Your task to perform on an android device: turn on showing notifications on the lock screen Image 0: 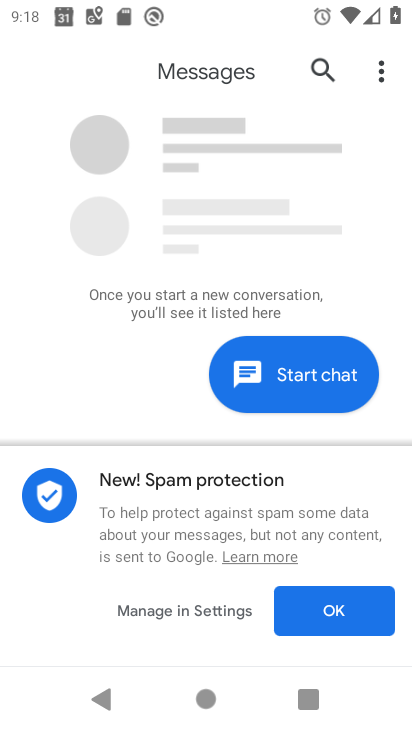
Step 0: press back button
Your task to perform on an android device: turn on showing notifications on the lock screen Image 1: 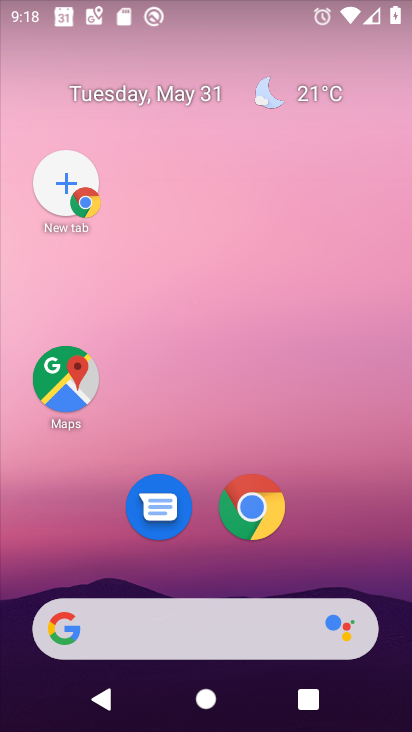
Step 1: drag from (260, 667) to (245, 71)
Your task to perform on an android device: turn on showing notifications on the lock screen Image 2: 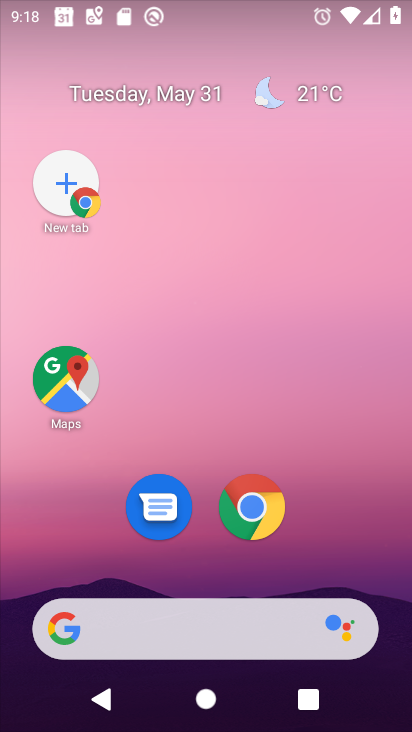
Step 2: drag from (260, 473) to (214, 98)
Your task to perform on an android device: turn on showing notifications on the lock screen Image 3: 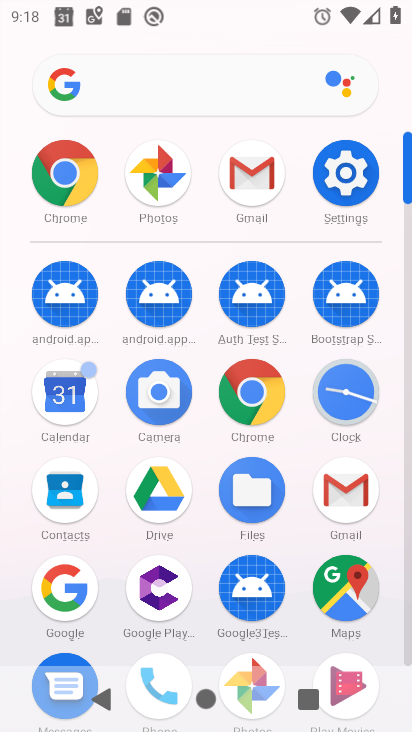
Step 3: click (347, 178)
Your task to perform on an android device: turn on showing notifications on the lock screen Image 4: 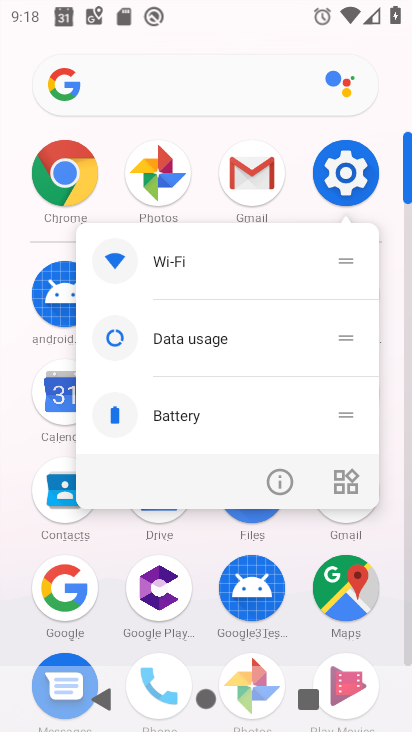
Step 4: click (341, 183)
Your task to perform on an android device: turn on showing notifications on the lock screen Image 5: 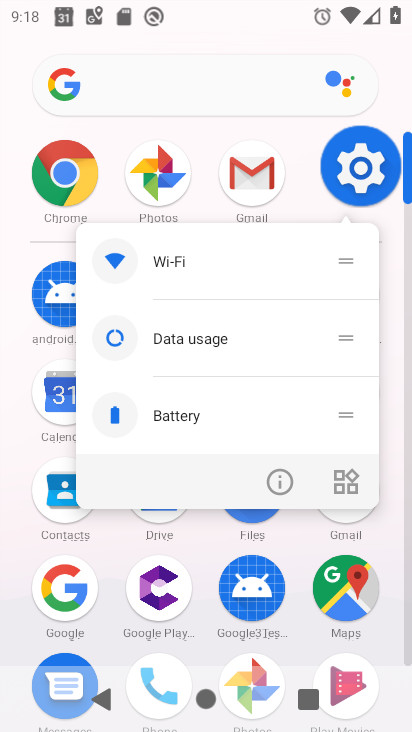
Step 5: click (356, 175)
Your task to perform on an android device: turn on showing notifications on the lock screen Image 6: 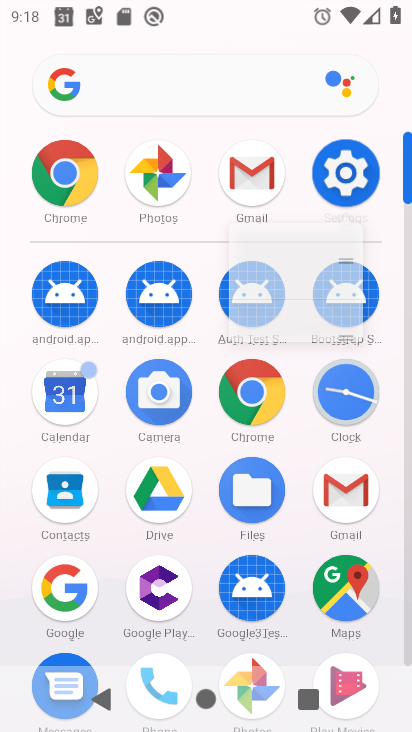
Step 6: click (355, 174)
Your task to perform on an android device: turn on showing notifications on the lock screen Image 7: 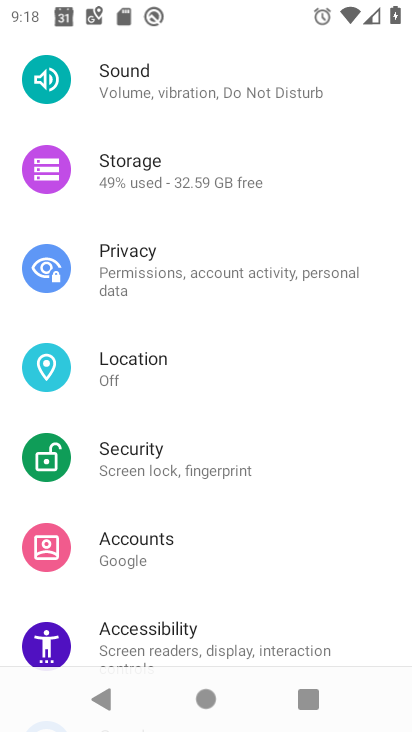
Step 7: drag from (139, 171) to (210, 674)
Your task to perform on an android device: turn on showing notifications on the lock screen Image 8: 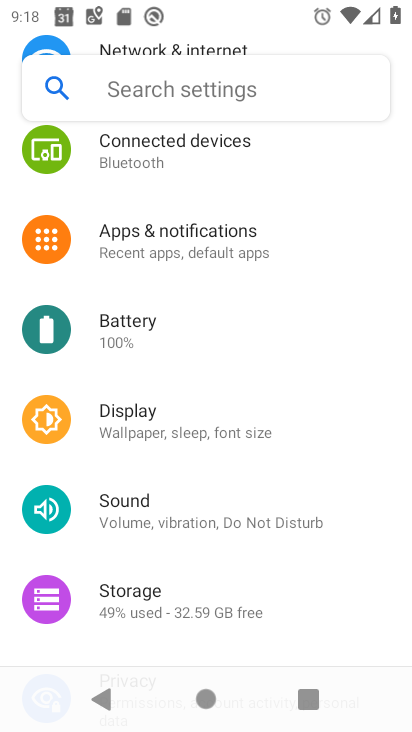
Step 8: drag from (168, 290) to (179, 567)
Your task to perform on an android device: turn on showing notifications on the lock screen Image 9: 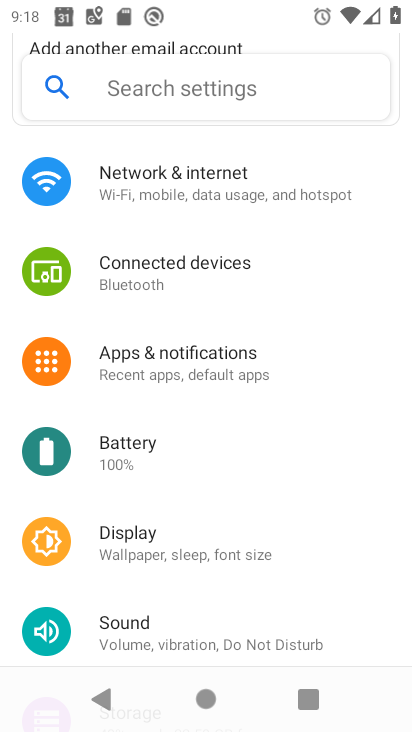
Step 9: click (162, 361)
Your task to perform on an android device: turn on showing notifications on the lock screen Image 10: 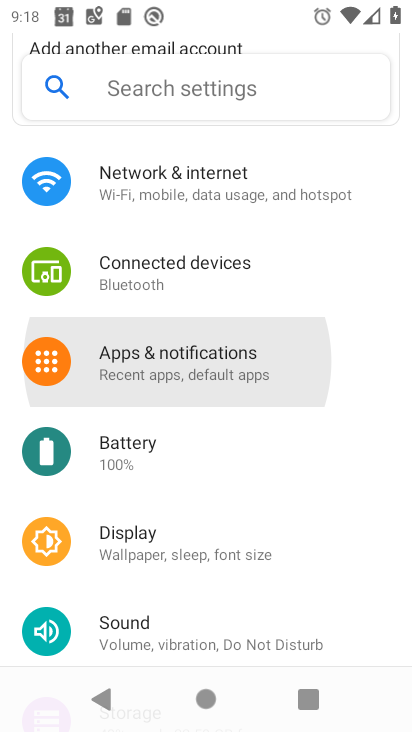
Step 10: click (163, 362)
Your task to perform on an android device: turn on showing notifications on the lock screen Image 11: 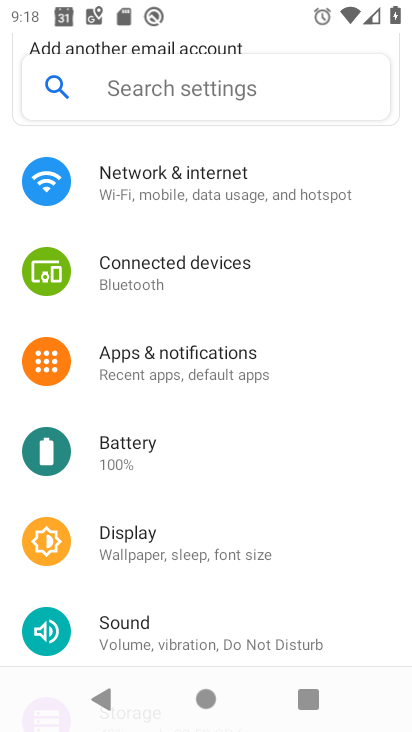
Step 11: click (172, 367)
Your task to perform on an android device: turn on showing notifications on the lock screen Image 12: 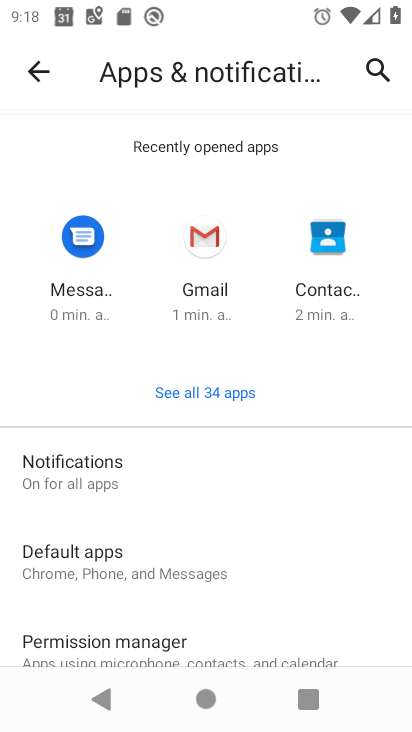
Step 12: click (62, 456)
Your task to perform on an android device: turn on showing notifications on the lock screen Image 13: 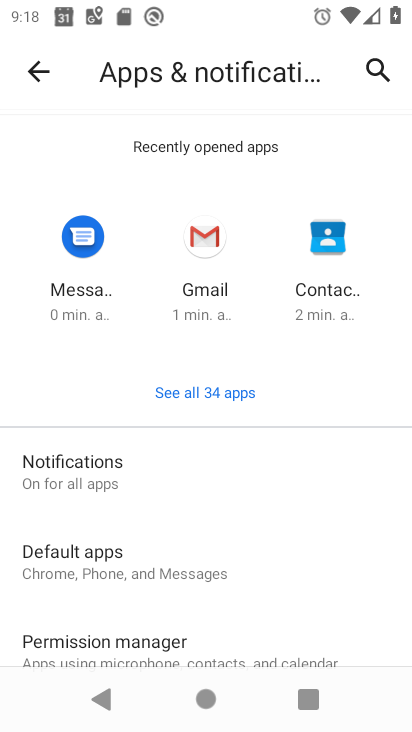
Step 13: click (62, 456)
Your task to perform on an android device: turn on showing notifications on the lock screen Image 14: 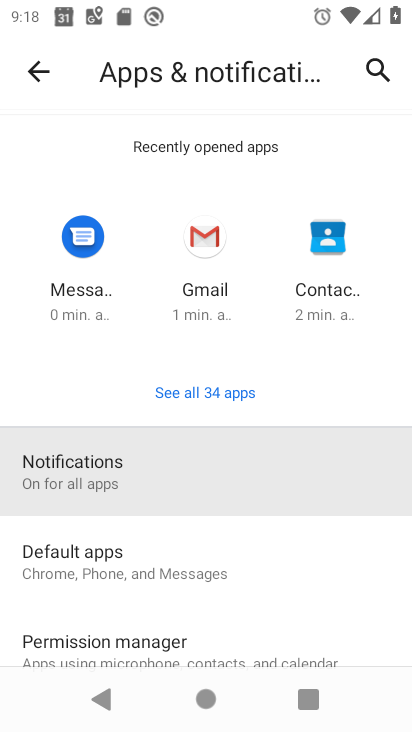
Step 14: click (62, 456)
Your task to perform on an android device: turn on showing notifications on the lock screen Image 15: 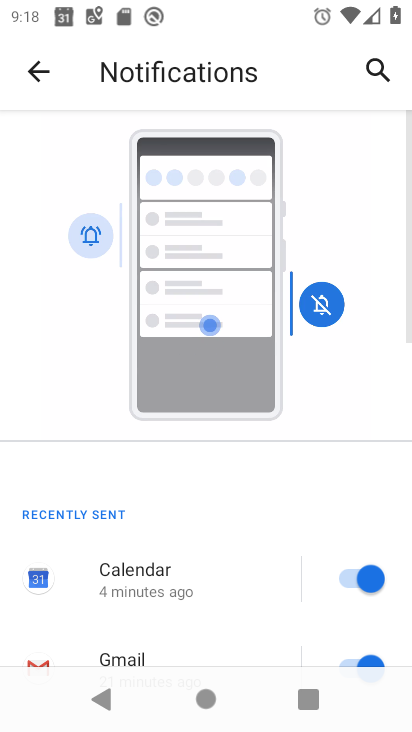
Step 15: drag from (214, 562) to (204, 151)
Your task to perform on an android device: turn on showing notifications on the lock screen Image 16: 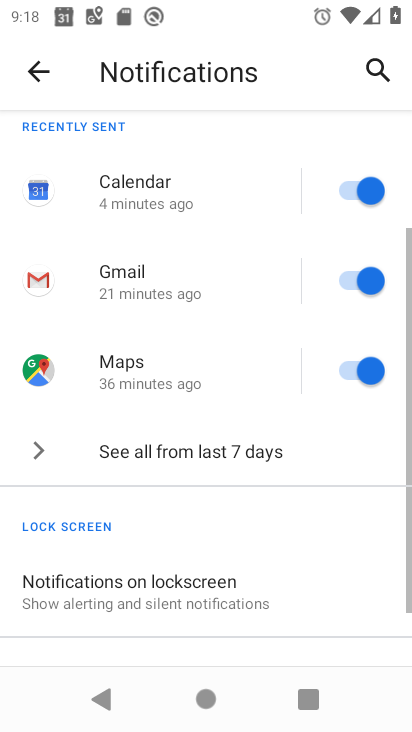
Step 16: drag from (197, 426) to (251, 115)
Your task to perform on an android device: turn on showing notifications on the lock screen Image 17: 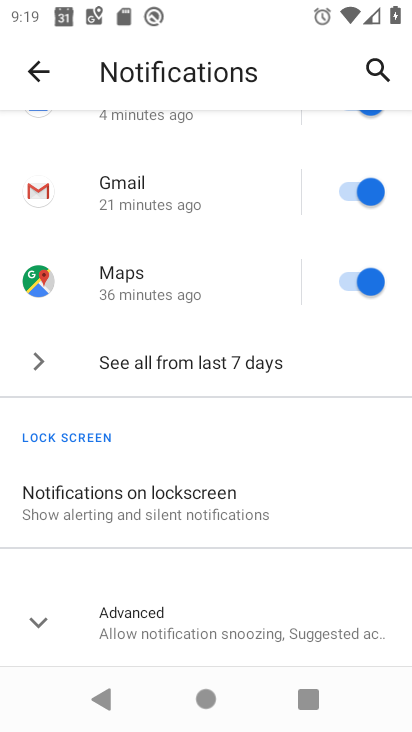
Step 17: click (276, 189)
Your task to perform on an android device: turn on showing notifications on the lock screen Image 18: 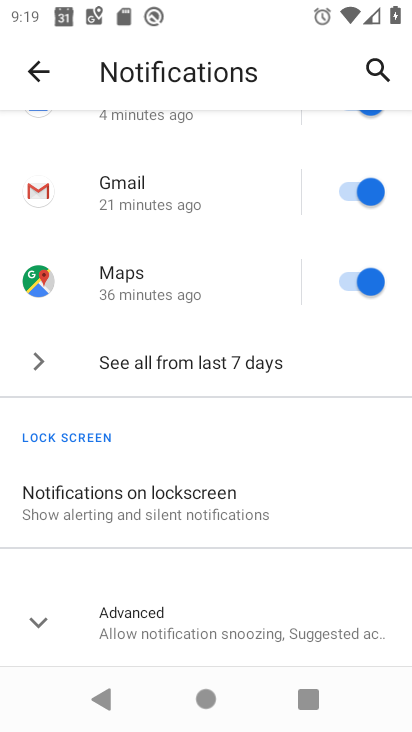
Step 18: drag from (279, 556) to (184, 162)
Your task to perform on an android device: turn on showing notifications on the lock screen Image 19: 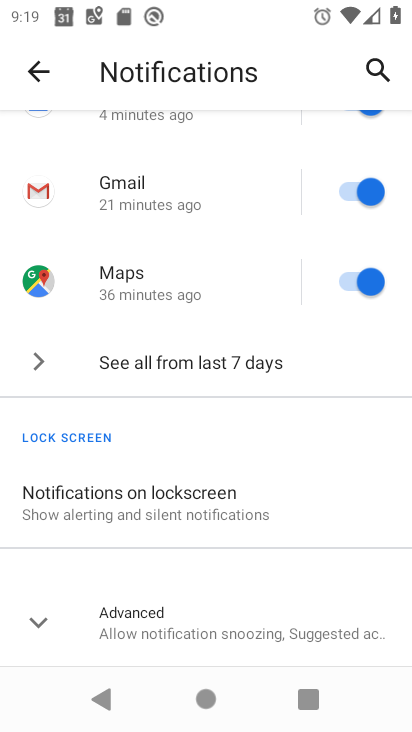
Step 19: click (169, 632)
Your task to perform on an android device: turn on showing notifications on the lock screen Image 20: 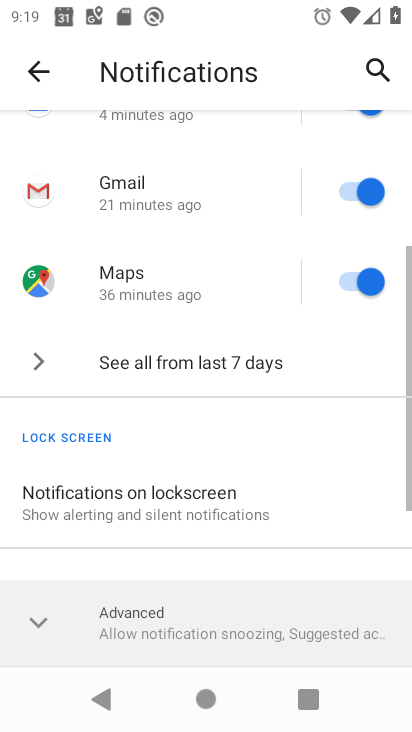
Step 20: click (164, 635)
Your task to perform on an android device: turn on showing notifications on the lock screen Image 21: 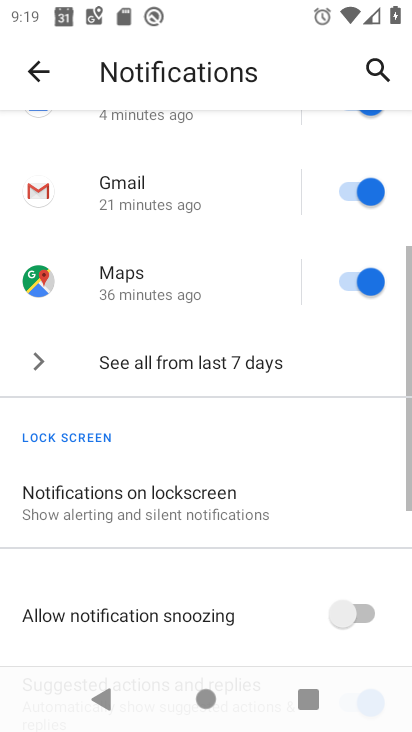
Step 21: click (164, 635)
Your task to perform on an android device: turn on showing notifications on the lock screen Image 22: 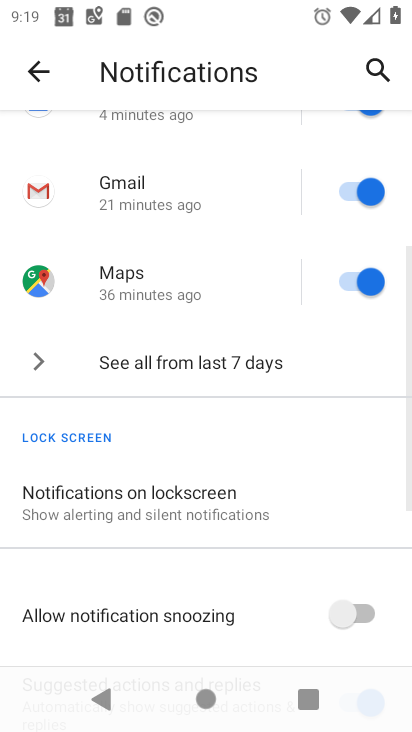
Step 22: drag from (184, 484) to (41, 95)
Your task to perform on an android device: turn on showing notifications on the lock screen Image 23: 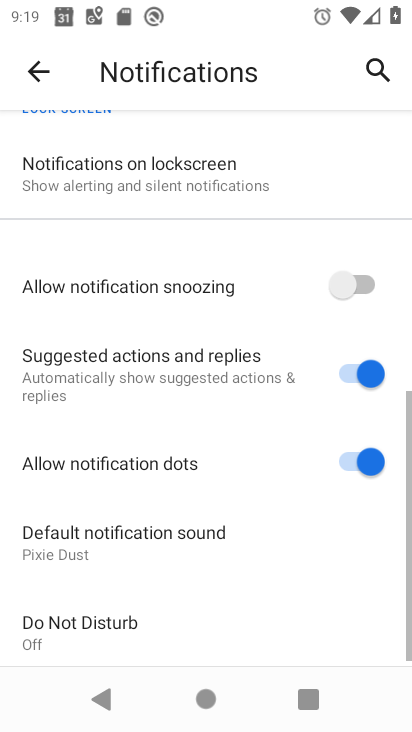
Step 23: drag from (185, 489) to (141, 39)
Your task to perform on an android device: turn on showing notifications on the lock screen Image 24: 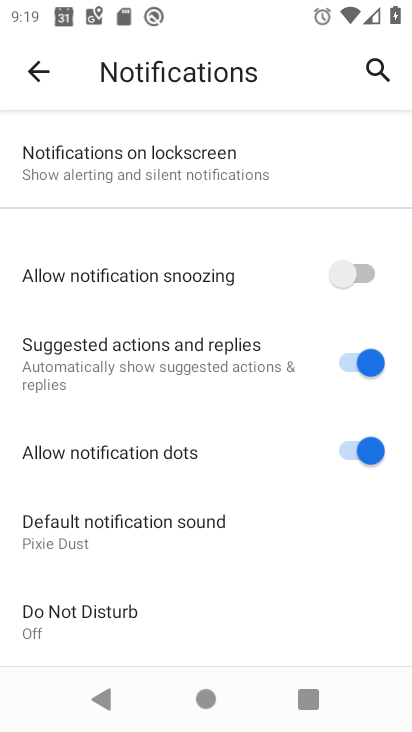
Step 24: click (370, 456)
Your task to perform on an android device: turn on showing notifications on the lock screen Image 25: 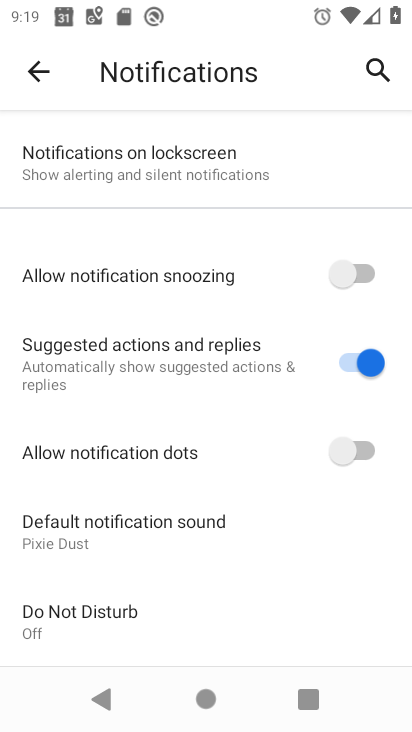
Step 25: click (156, 164)
Your task to perform on an android device: turn on showing notifications on the lock screen Image 26: 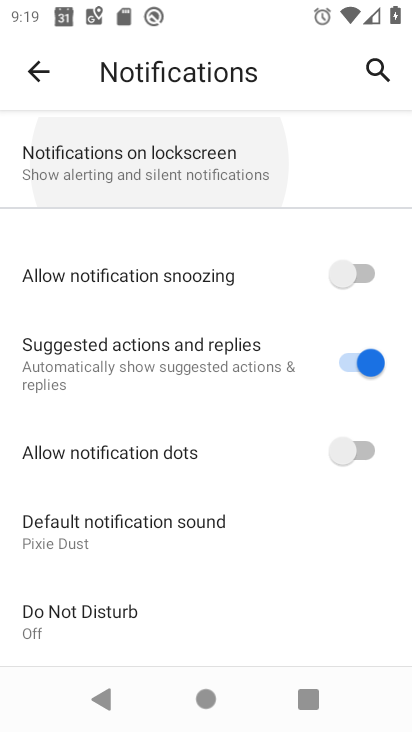
Step 26: click (157, 164)
Your task to perform on an android device: turn on showing notifications on the lock screen Image 27: 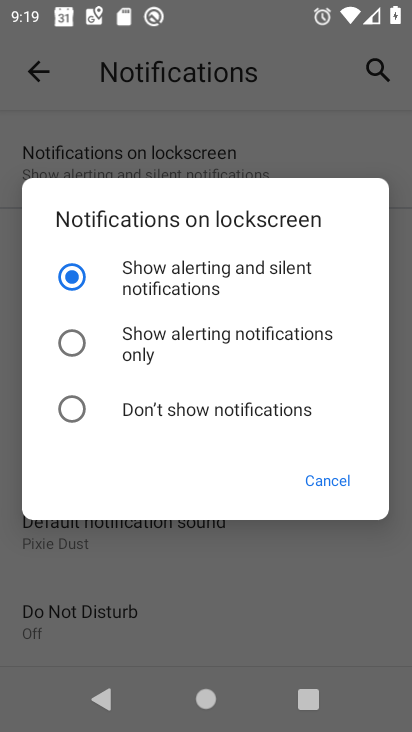
Step 27: click (337, 485)
Your task to perform on an android device: turn on showing notifications on the lock screen Image 28: 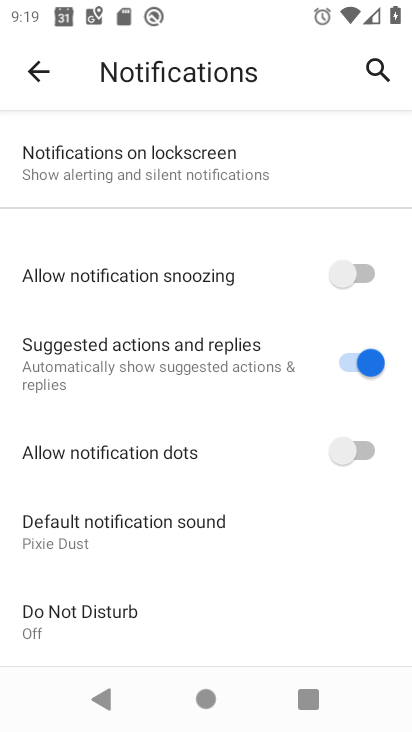
Step 28: task complete